Your task to perform on an android device: toggle notifications settings in the gmail app Image 0: 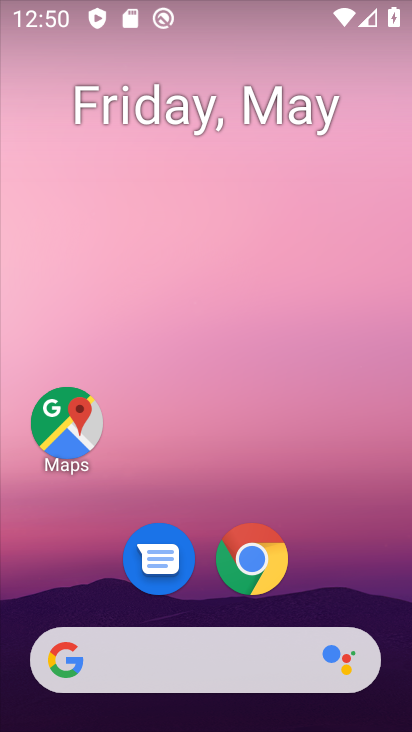
Step 0: drag from (339, 465) to (276, 80)
Your task to perform on an android device: toggle notifications settings in the gmail app Image 1: 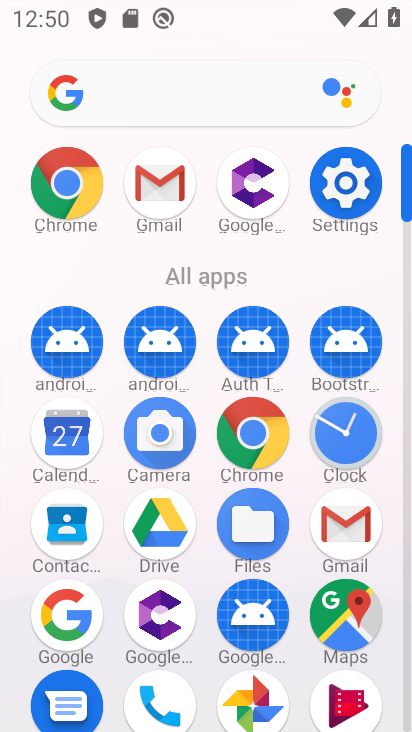
Step 1: click (168, 172)
Your task to perform on an android device: toggle notifications settings in the gmail app Image 2: 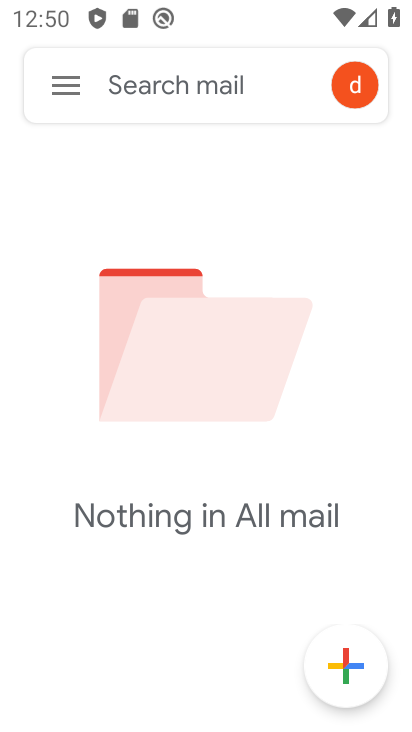
Step 2: click (58, 76)
Your task to perform on an android device: toggle notifications settings in the gmail app Image 3: 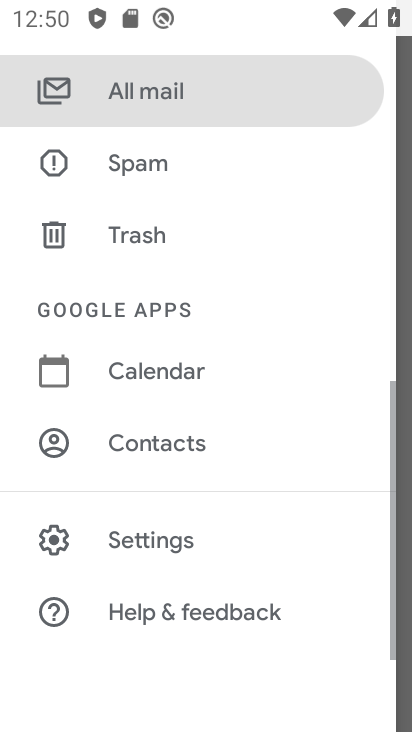
Step 3: click (143, 533)
Your task to perform on an android device: toggle notifications settings in the gmail app Image 4: 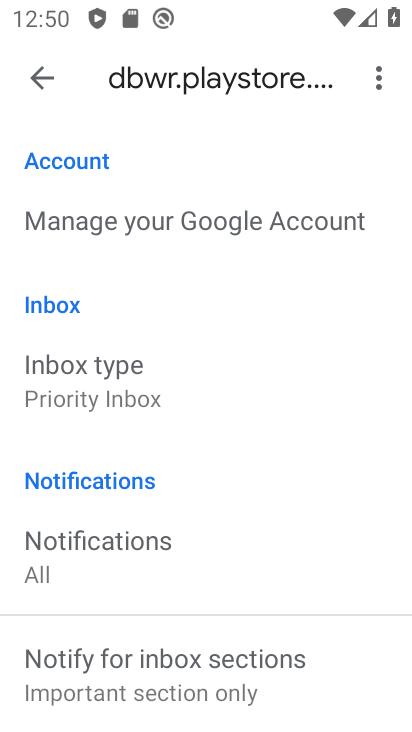
Step 4: drag from (172, 576) to (208, 215)
Your task to perform on an android device: toggle notifications settings in the gmail app Image 5: 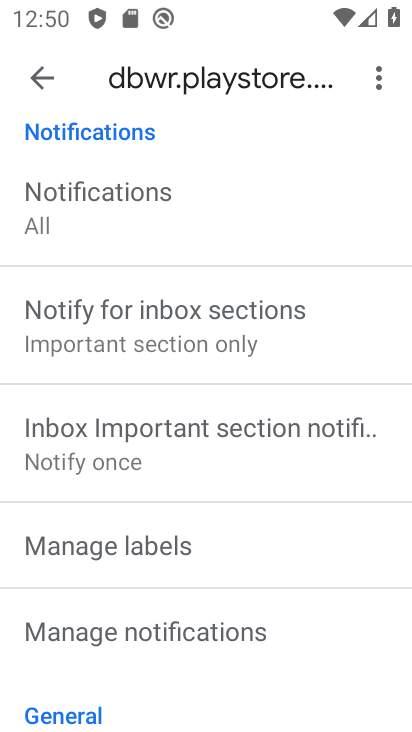
Step 5: click (134, 629)
Your task to perform on an android device: toggle notifications settings in the gmail app Image 6: 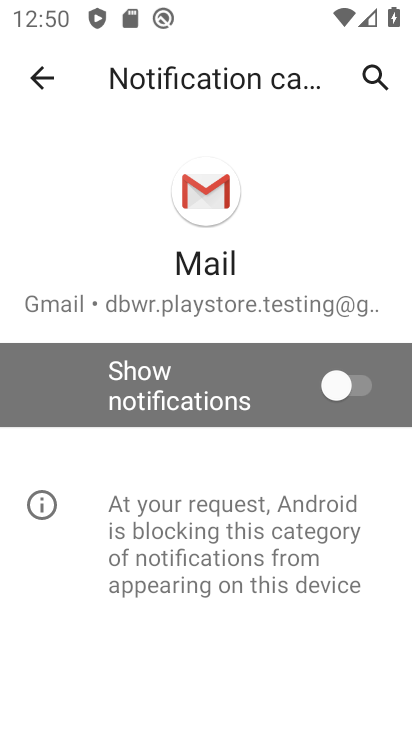
Step 6: click (363, 401)
Your task to perform on an android device: toggle notifications settings in the gmail app Image 7: 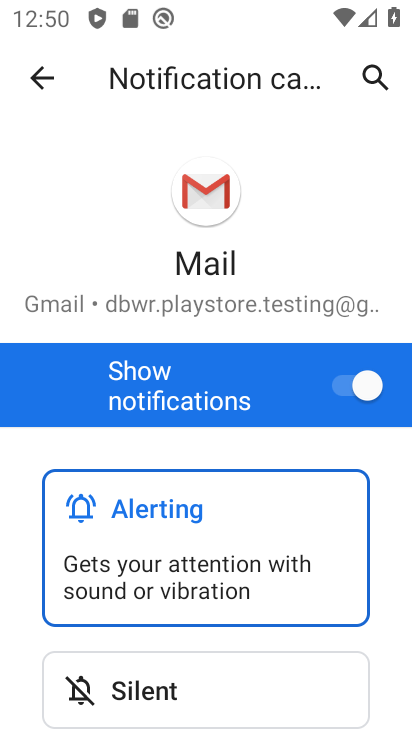
Step 7: task complete